Your task to perform on an android device: turn on translation in the chrome app Image 0: 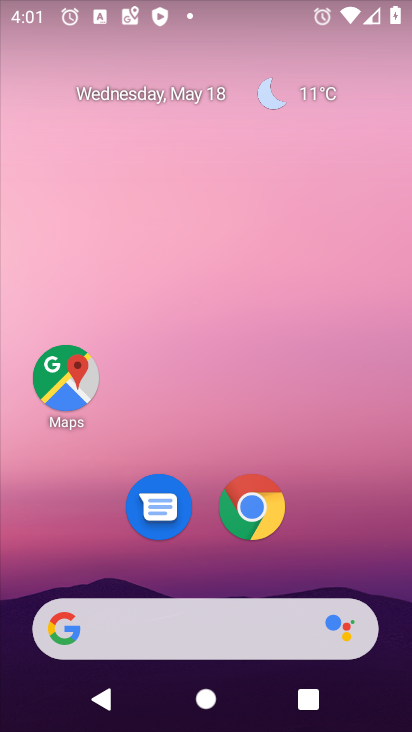
Step 0: click (248, 512)
Your task to perform on an android device: turn on translation in the chrome app Image 1: 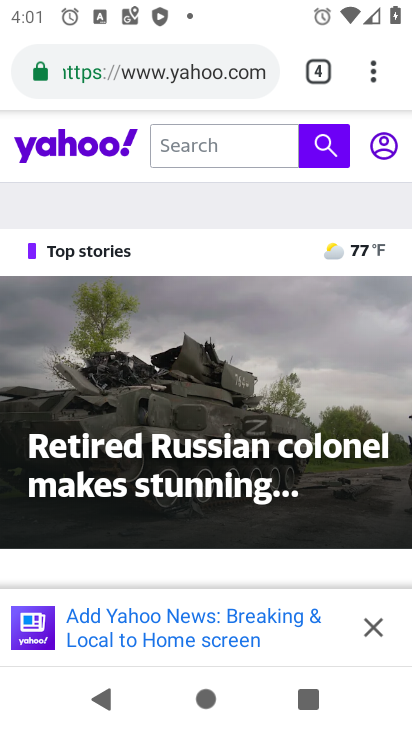
Step 1: click (373, 66)
Your task to perform on an android device: turn on translation in the chrome app Image 2: 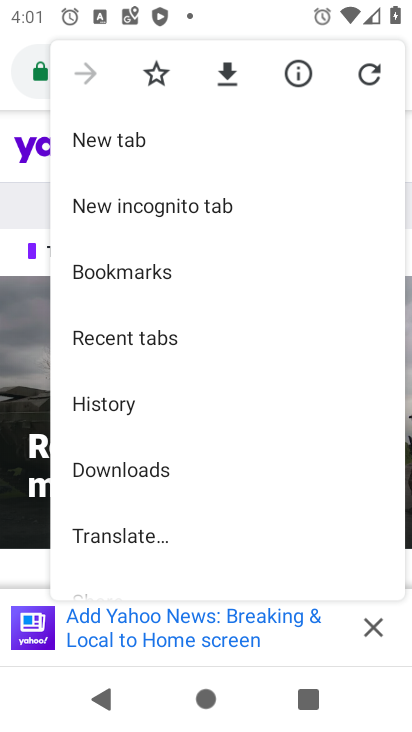
Step 2: drag from (184, 527) to (234, 212)
Your task to perform on an android device: turn on translation in the chrome app Image 3: 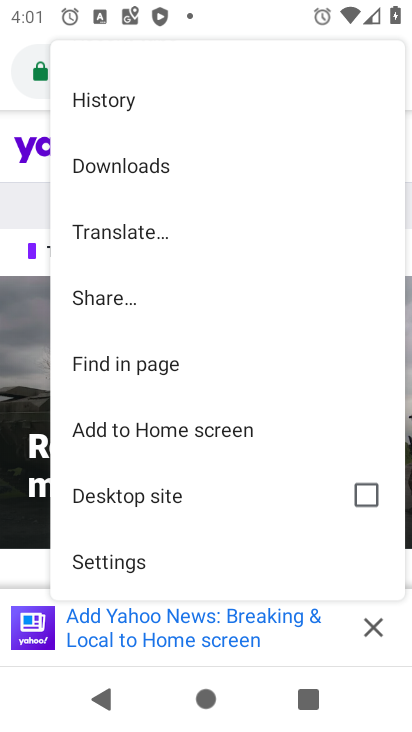
Step 3: click (129, 554)
Your task to perform on an android device: turn on translation in the chrome app Image 4: 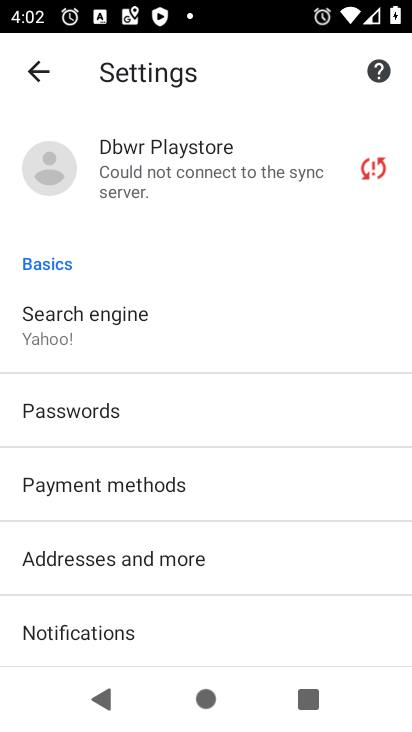
Step 4: drag from (256, 571) to (187, 206)
Your task to perform on an android device: turn on translation in the chrome app Image 5: 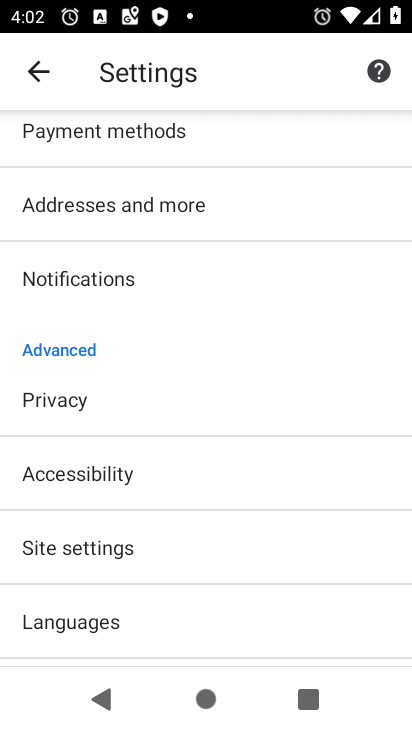
Step 5: click (84, 627)
Your task to perform on an android device: turn on translation in the chrome app Image 6: 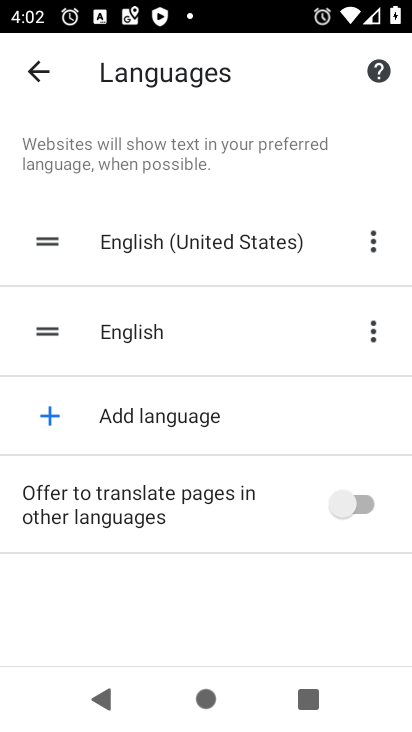
Step 6: click (367, 505)
Your task to perform on an android device: turn on translation in the chrome app Image 7: 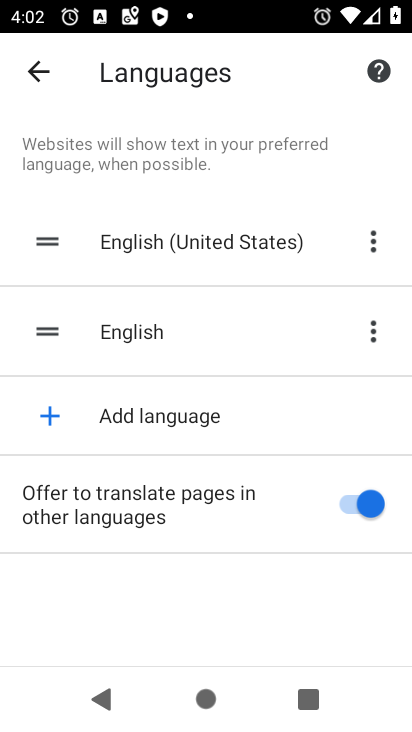
Step 7: task complete